Your task to perform on an android device: toggle show notifications on the lock screen Image 0: 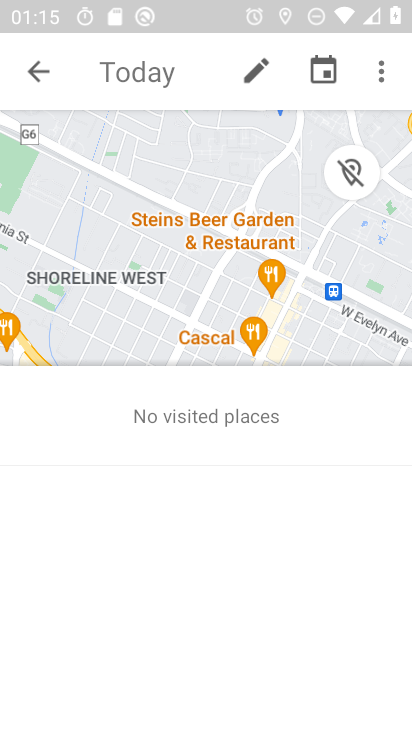
Step 0: press home button
Your task to perform on an android device: toggle show notifications on the lock screen Image 1: 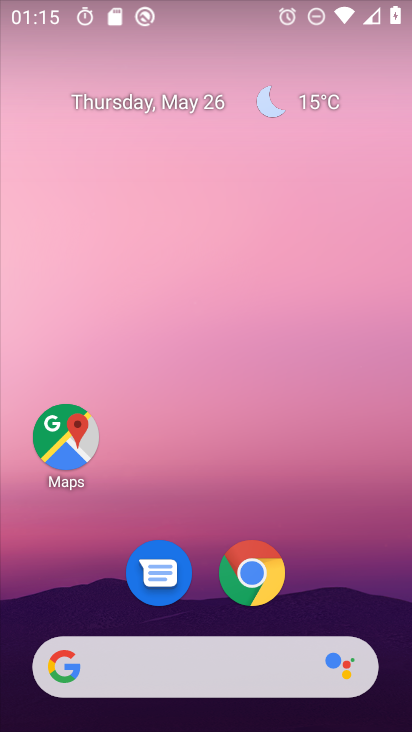
Step 1: drag from (344, 612) to (410, 596)
Your task to perform on an android device: toggle show notifications on the lock screen Image 2: 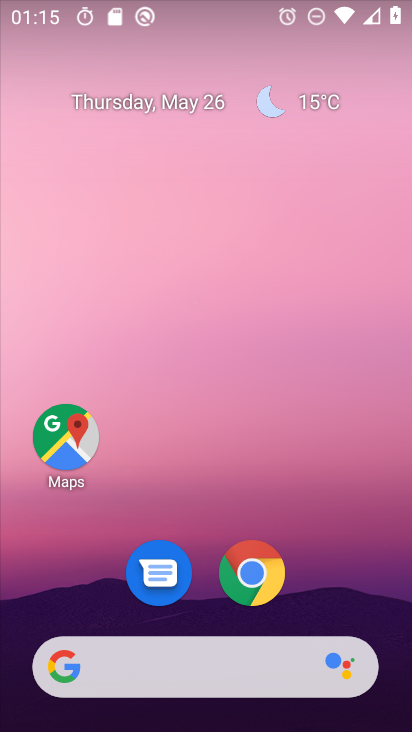
Step 2: drag from (370, 629) to (411, 428)
Your task to perform on an android device: toggle show notifications on the lock screen Image 3: 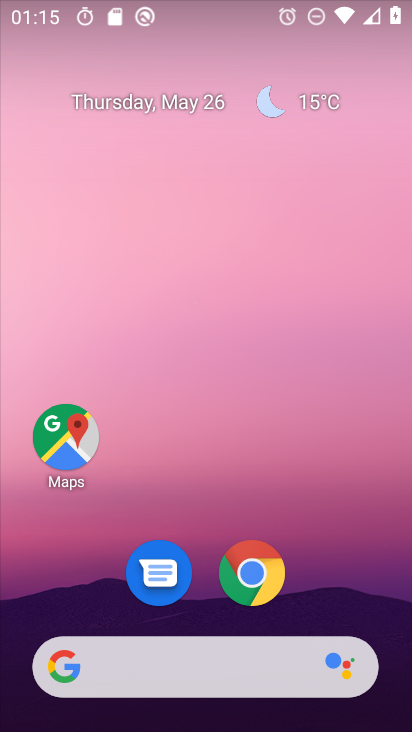
Step 3: drag from (317, 593) to (343, 8)
Your task to perform on an android device: toggle show notifications on the lock screen Image 4: 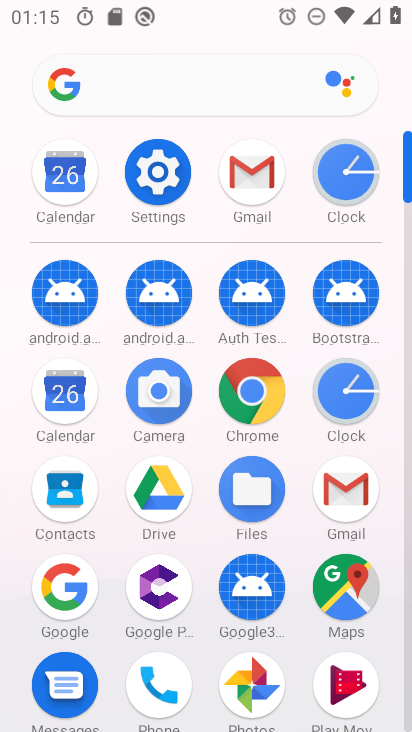
Step 4: click (168, 178)
Your task to perform on an android device: toggle show notifications on the lock screen Image 5: 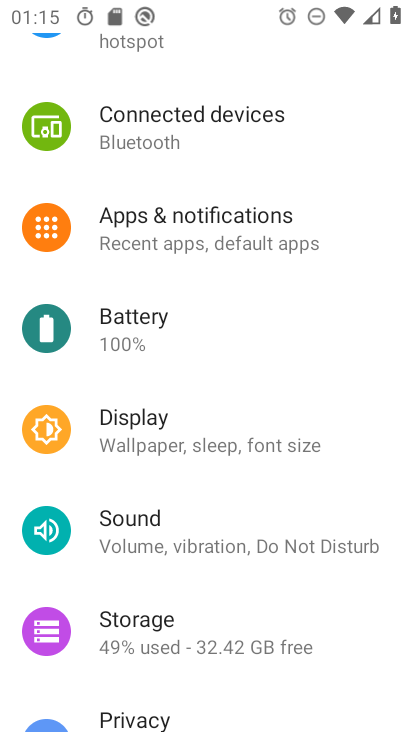
Step 5: click (215, 232)
Your task to perform on an android device: toggle show notifications on the lock screen Image 6: 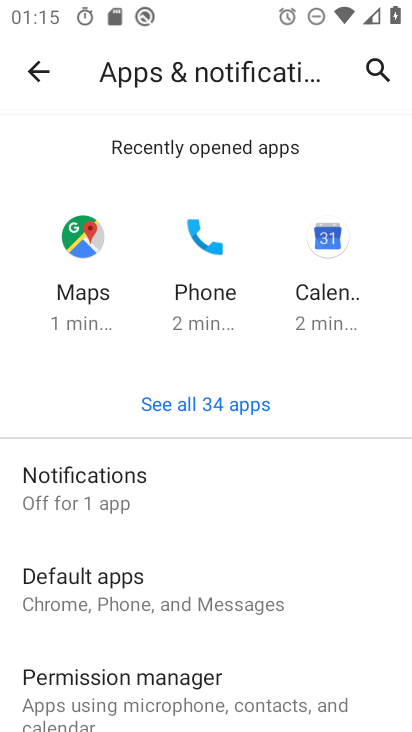
Step 6: click (78, 489)
Your task to perform on an android device: toggle show notifications on the lock screen Image 7: 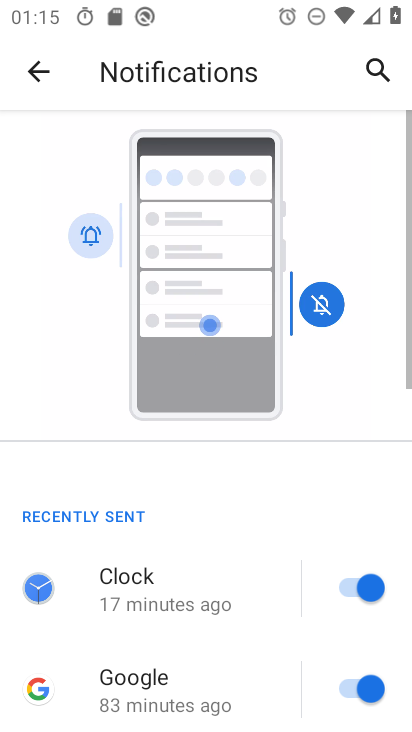
Step 7: drag from (259, 574) to (267, 159)
Your task to perform on an android device: toggle show notifications on the lock screen Image 8: 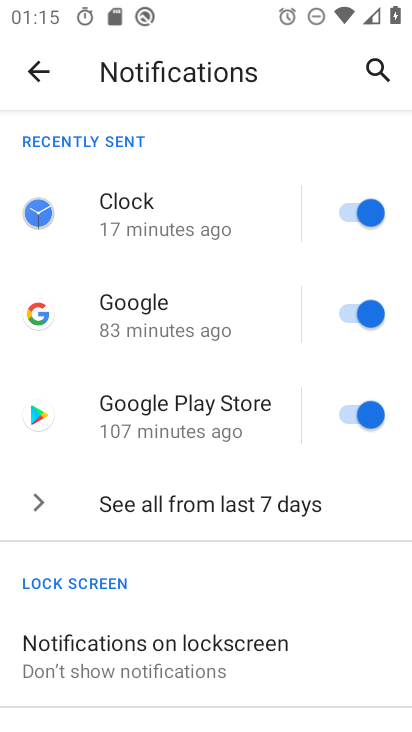
Step 8: drag from (191, 532) to (207, 310)
Your task to perform on an android device: toggle show notifications on the lock screen Image 9: 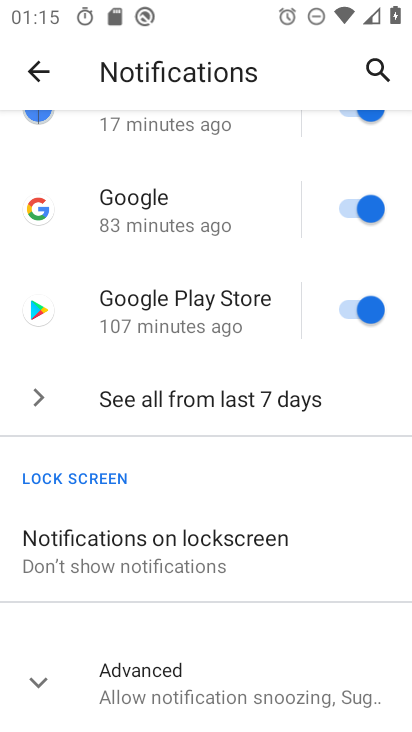
Step 9: click (114, 562)
Your task to perform on an android device: toggle show notifications on the lock screen Image 10: 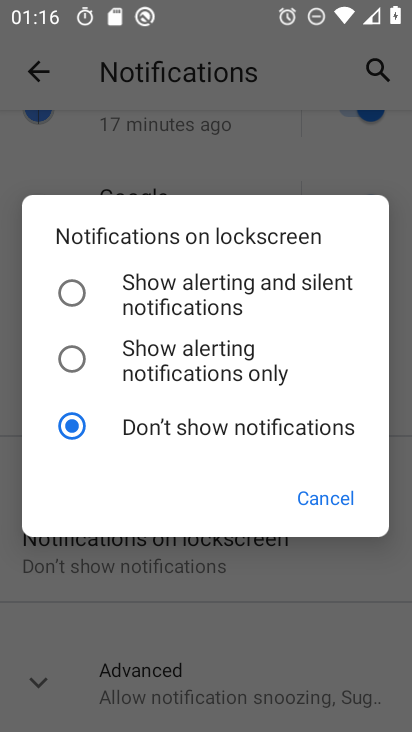
Step 10: click (75, 281)
Your task to perform on an android device: toggle show notifications on the lock screen Image 11: 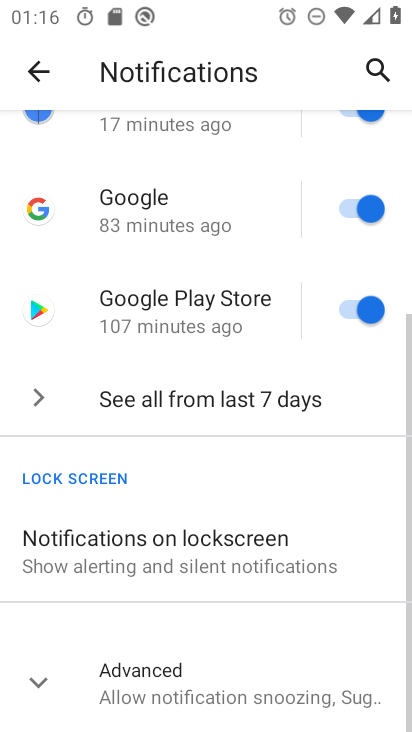
Step 11: task complete